Your task to perform on an android device: Open calendar and show me the first week of next month Image 0: 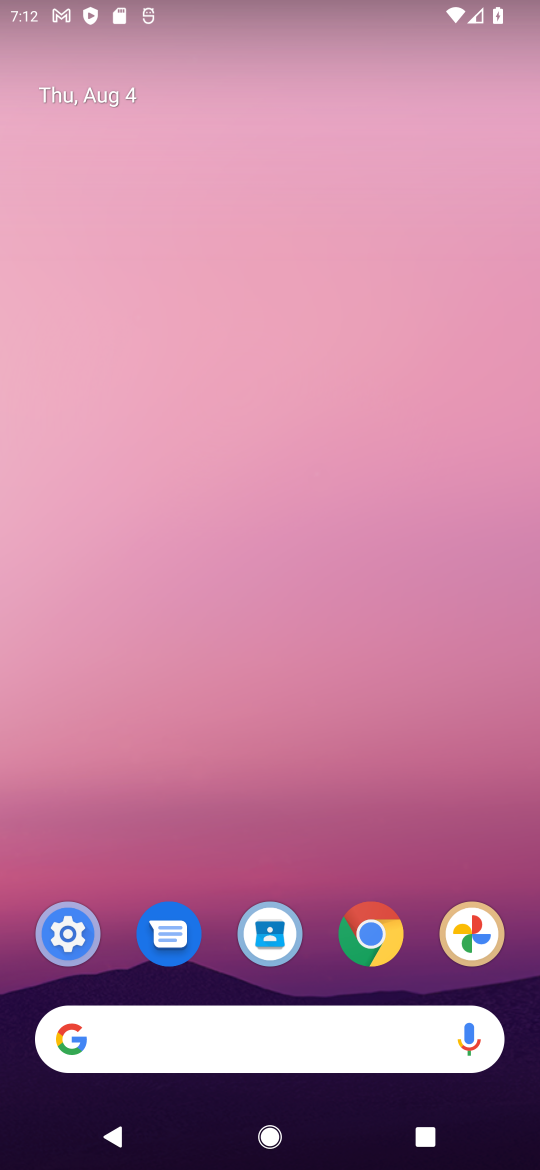
Step 0: drag from (280, 1020) to (282, 50)
Your task to perform on an android device: Open calendar and show me the first week of next month Image 1: 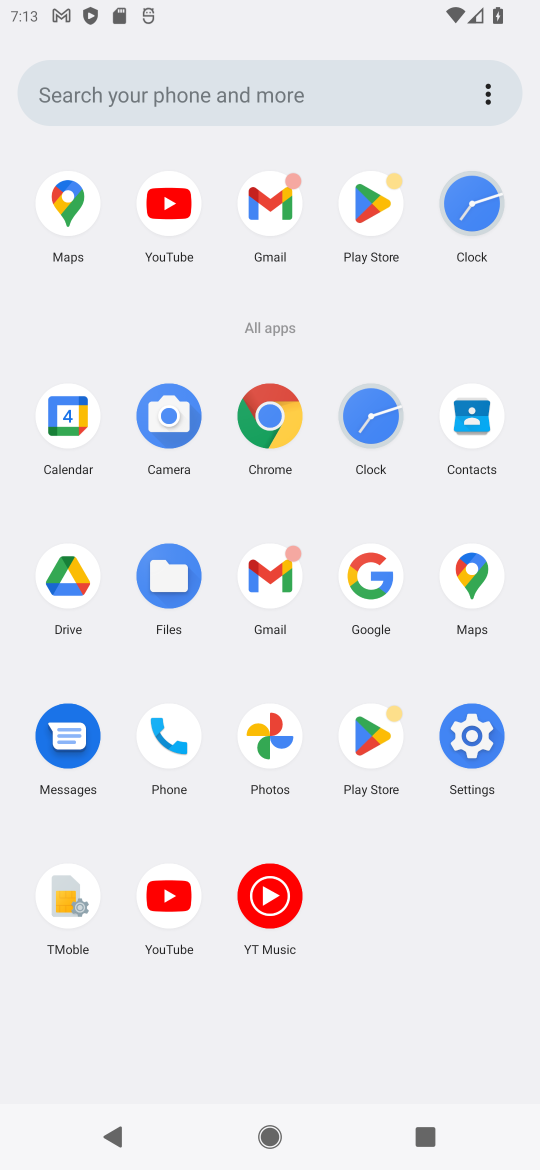
Step 1: click (58, 440)
Your task to perform on an android device: Open calendar and show me the first week of next month Image 2: 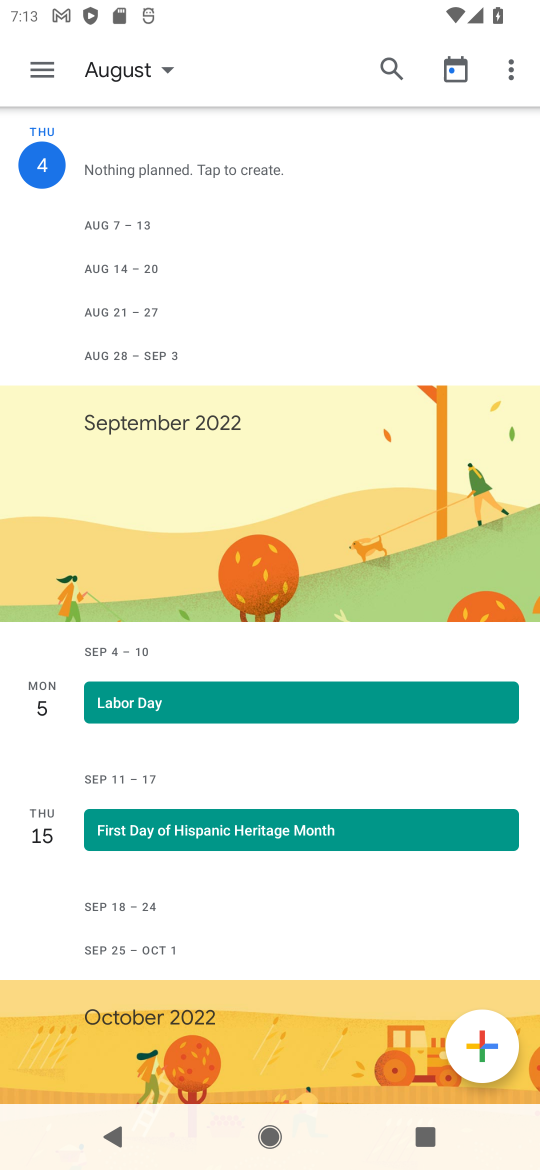
Step 2: click (48, 65)
Your task to perform on an android device: Open calendar and show me the first week of next month Image 3: 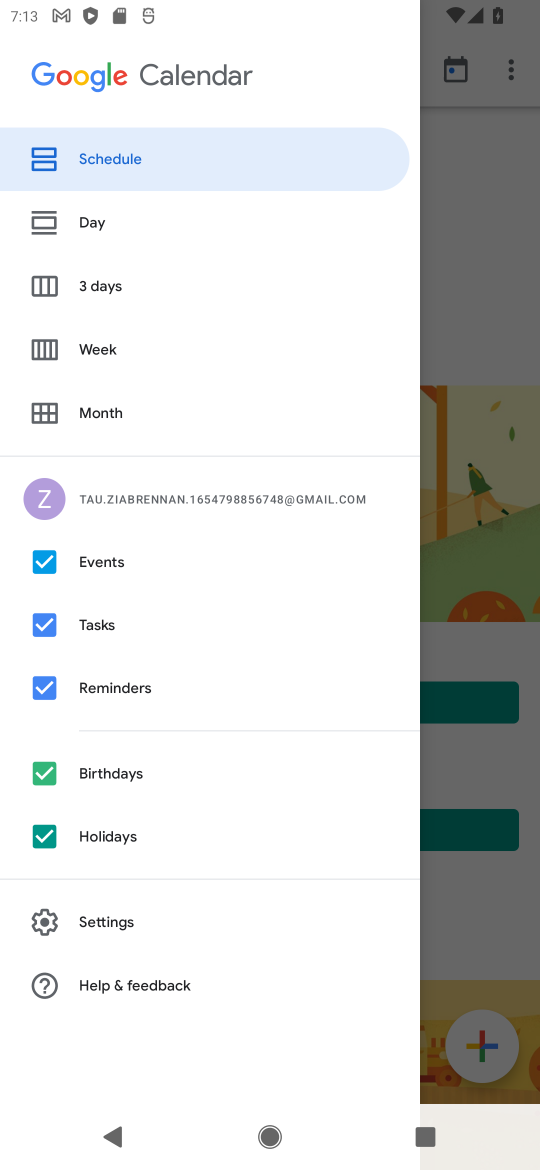
Step 3: click (93, 412)
Your task to perform on an android device: Open calendar and show me the first week of next month Image 4: 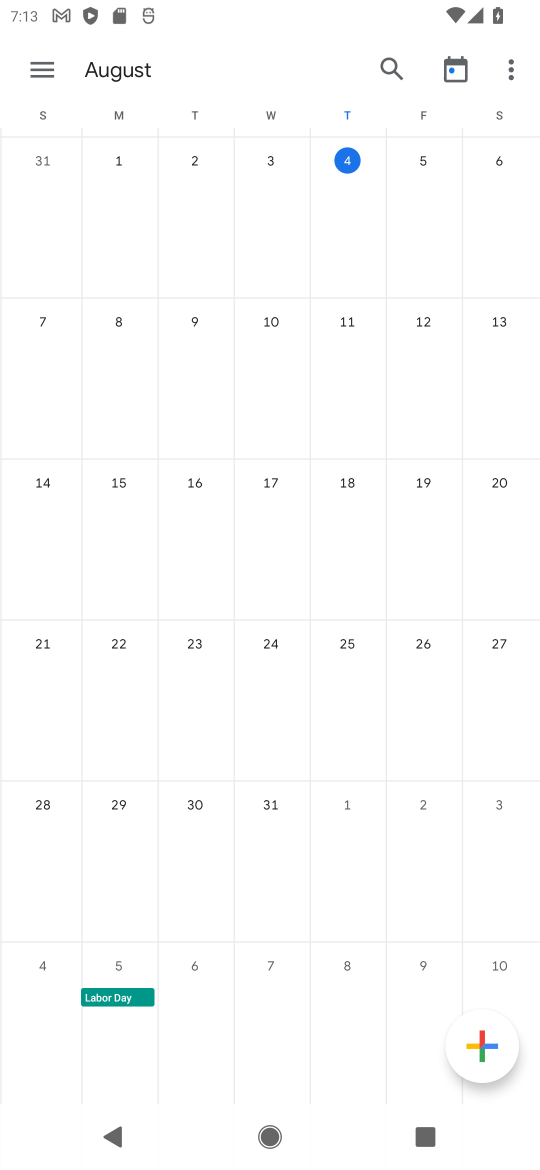
Step 4: task complete